Your task to perform on an android device: open a new tab in the chrome app Image 0: 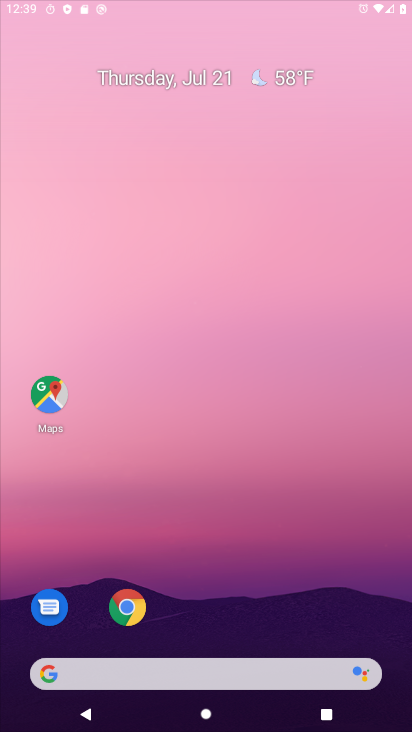
Step 0: press home button
Your task to perform on an android device: open a new tab in the chrome app Image 1: 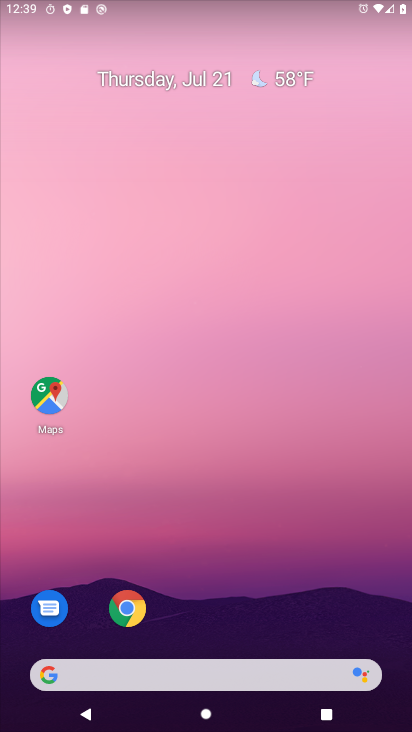
Step 1: click (120, 617)
Your task to perform on an android device: open a new tab in the chrome app Image 2: 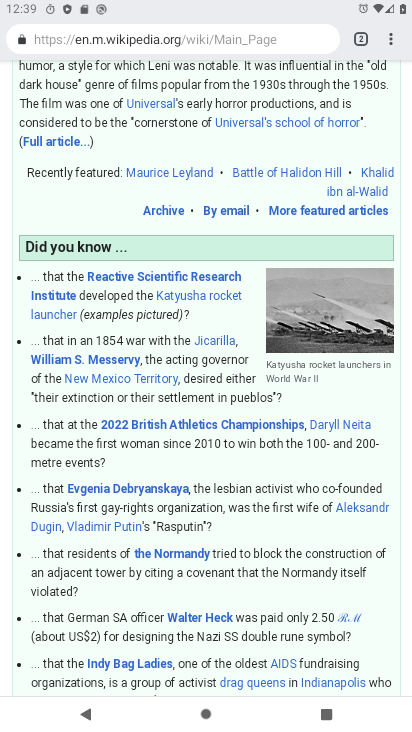
Step 2: drag from (245, 101) to (217, 531)
Your task to perform on an android device: open a new tab in the chrome app Image 3: 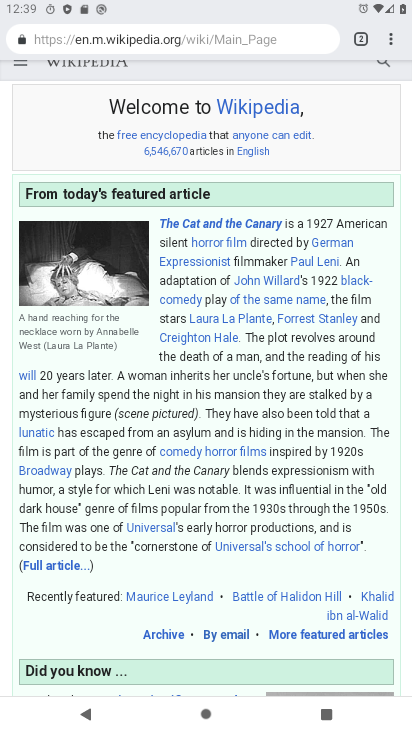
Step 3: click (357, 35)
Your task to perform on an android device: open a new tab in the chrome app Image 4: 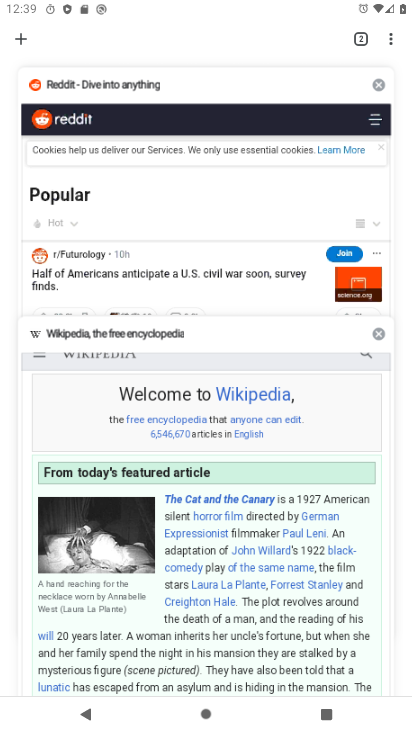
Step 4: click (22, 41)
Your task to perform on an android device: open a new tab in the chrome app Image 5: 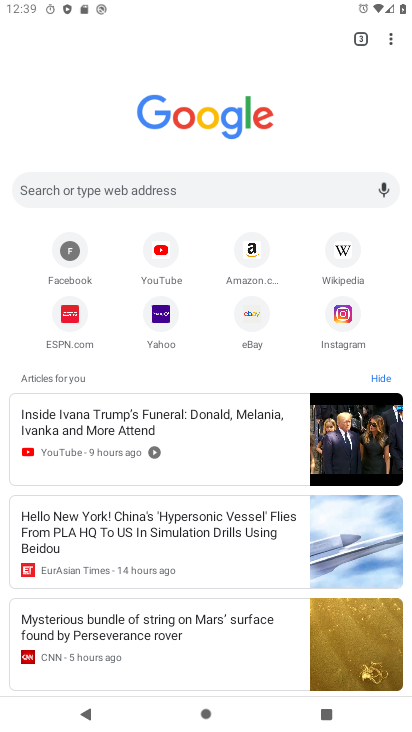
Step 5: click (357, 34)
Your task to perform on an android device: open a new tab in the chrome app Image 6: 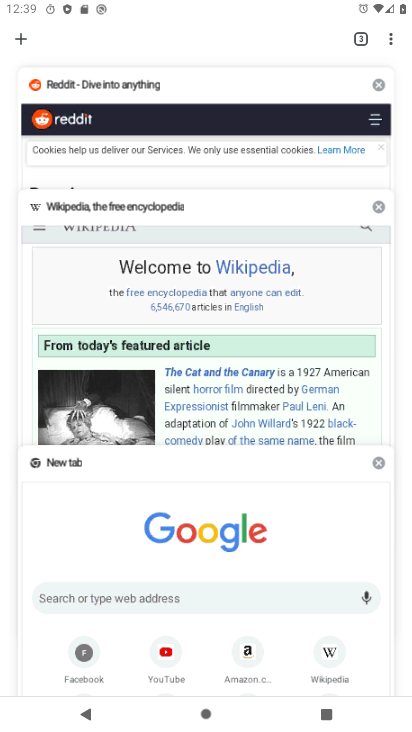
Step 6: click (22, 40)
Your task to perform on an android device: open a new tab in the chrome app Image 7: 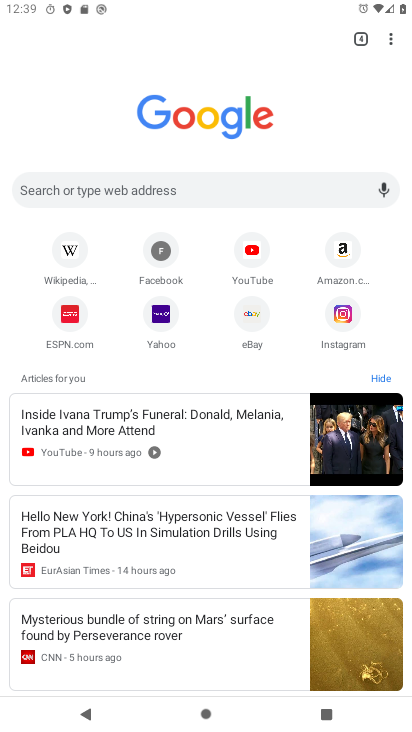
Step 7: task complete